Your task to perform on an android device: What's the weather today? Image 0: 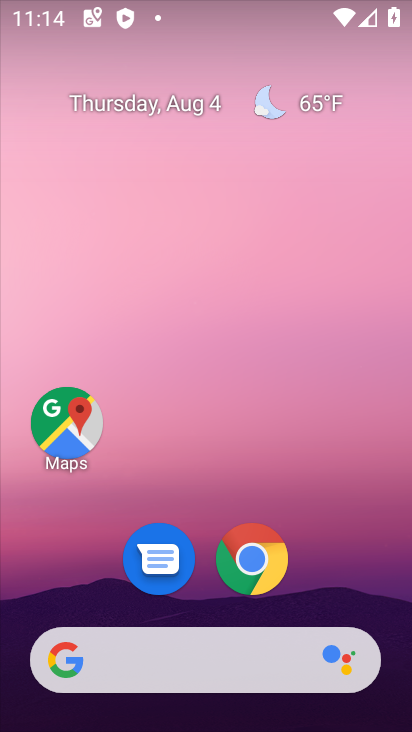
Step 0: click (217, 662)
Your task to perform on an android device: What's the weather today? Image 1: 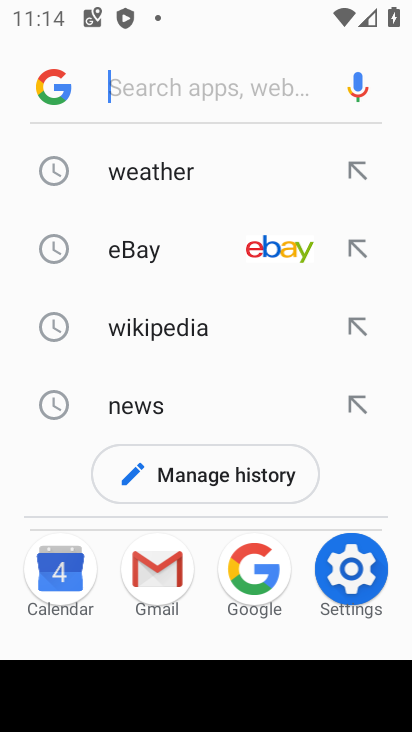
Step 1: click (126, 178)
Your task to perform on an android device: What's the weather today? Image 2: 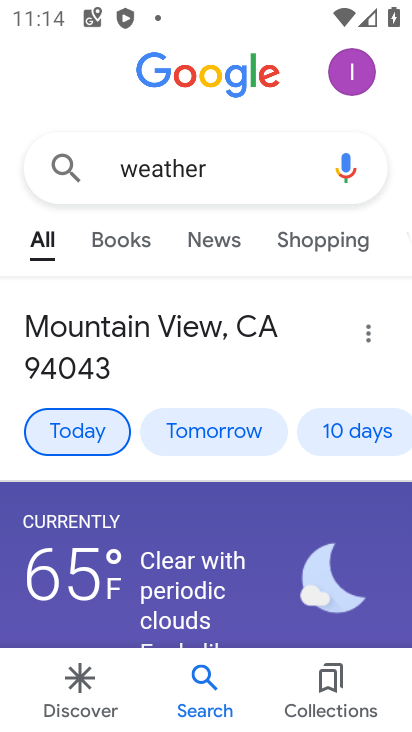
Step 2: task complete